Your task to perform on an android device: move a message to another label in the gmail app Image 0: 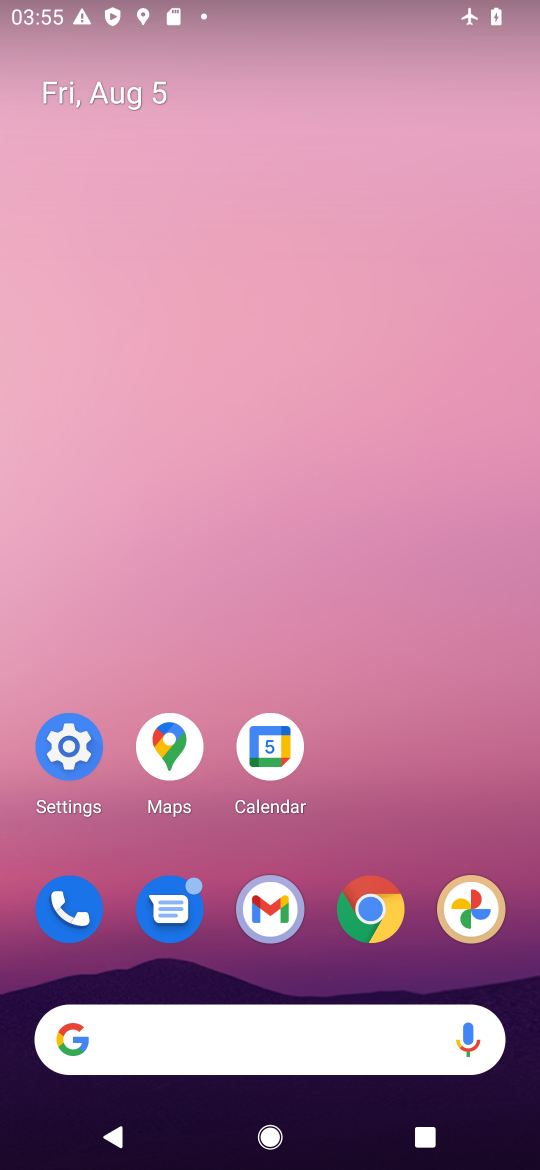
Step 0: click (268, 908)
Your task to perform on an android device: move a message to another label in the gmail app Image 1: 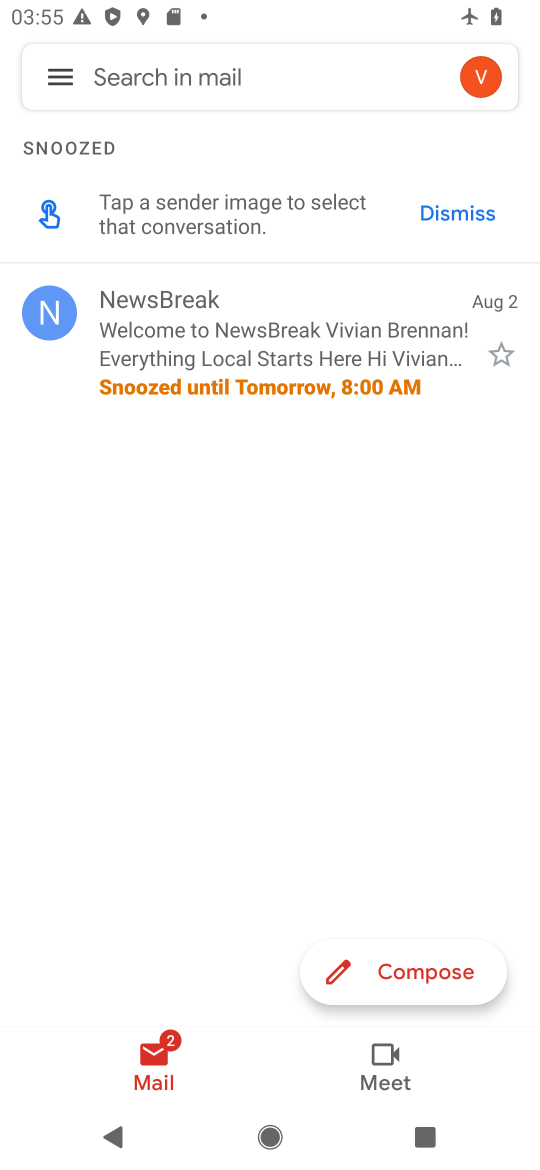
Step 1: click (328, 310)
Your task to perform on an android device: move a message to another label in the gmail app Image 2: 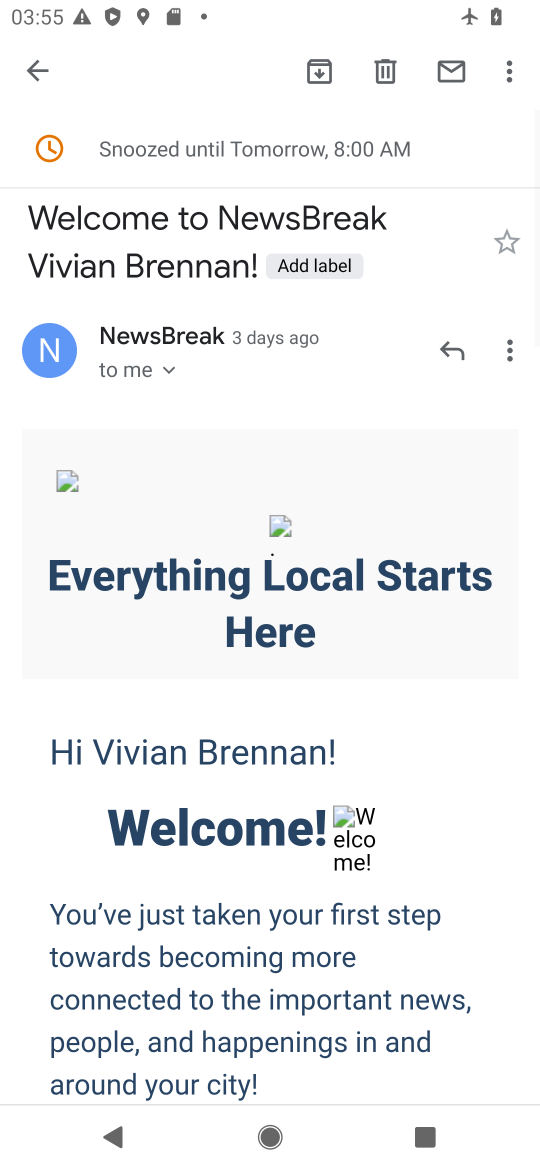
Step 2: click (512, 72)
Your task to perform on an android device: move a message to another label in the gmail app Image 3: 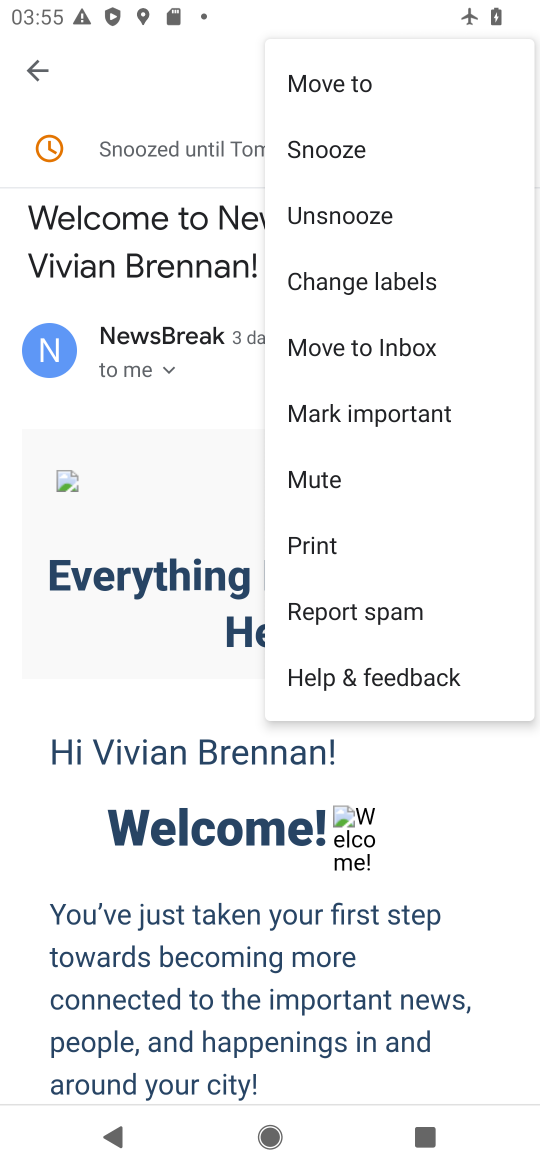
Step 3: click (376, 272)
Your task to perform on an android device: move a message to another label in the gmail app Image 4: 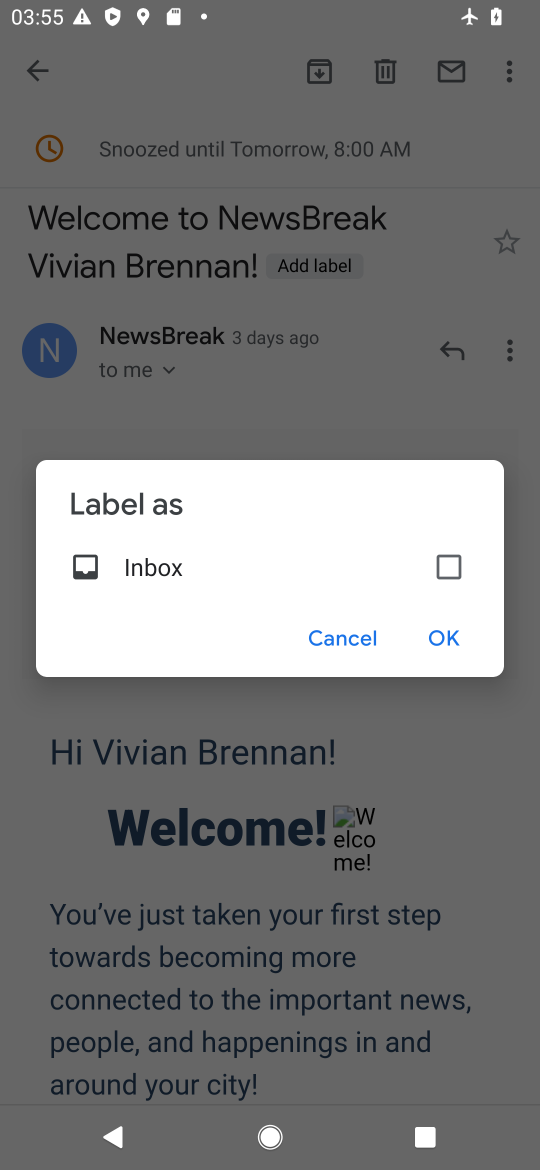
Step 4: click (448, 568)
Your task to perform on an android device: move a message to another label in the gmail app Image 5: 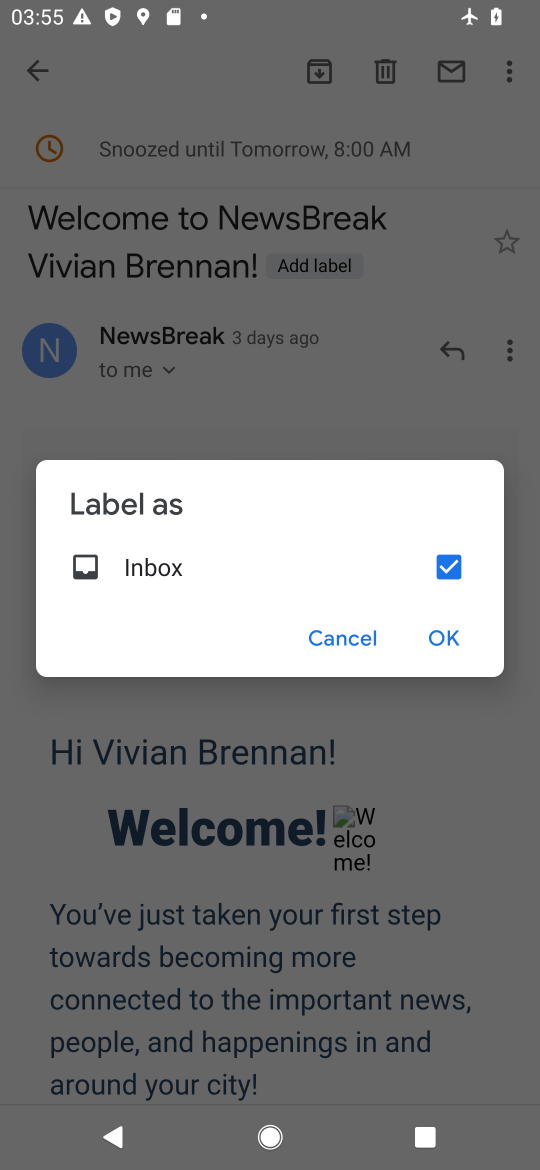
Step 5: click (439, 631)
Your task to perform on an android device: move a message to another label in the gmail app Image 6: 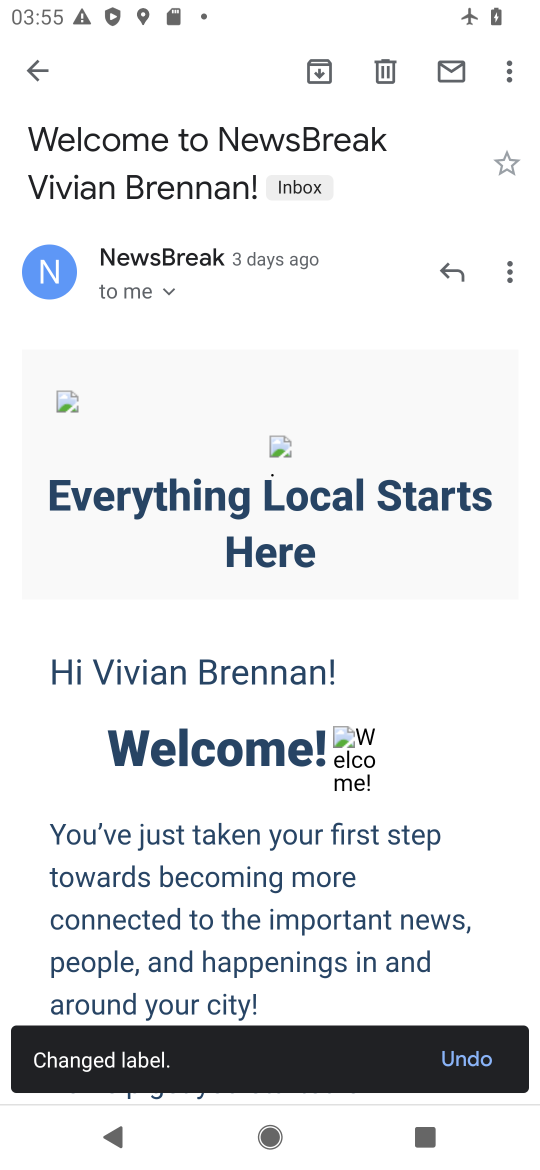
Step 6: task complete